Your task to perform on an android device: Open eBay Image 0: 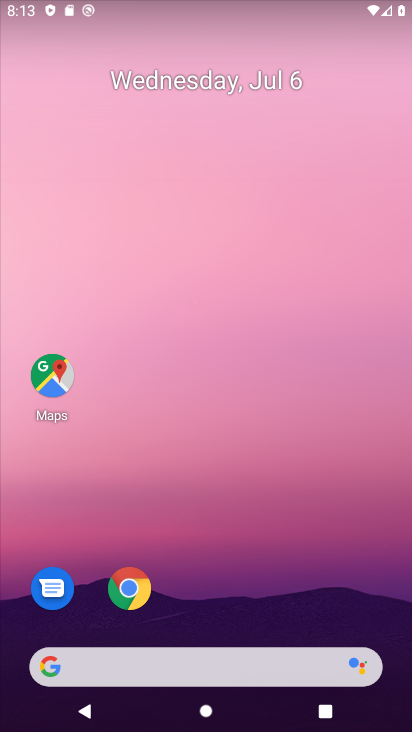
Step 0: drag from (276, 604) to (178, 157)
Your task to perform on an android device: Open eBay Image 1: 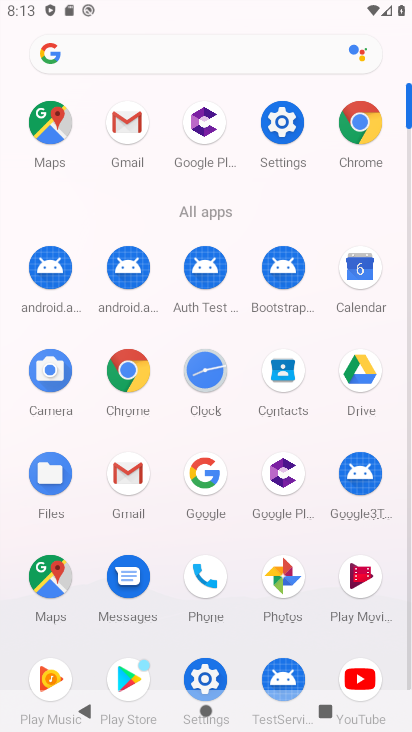
Step 1: click (365, 129)
Your task to perform on an android device: Open eBay Image 2: 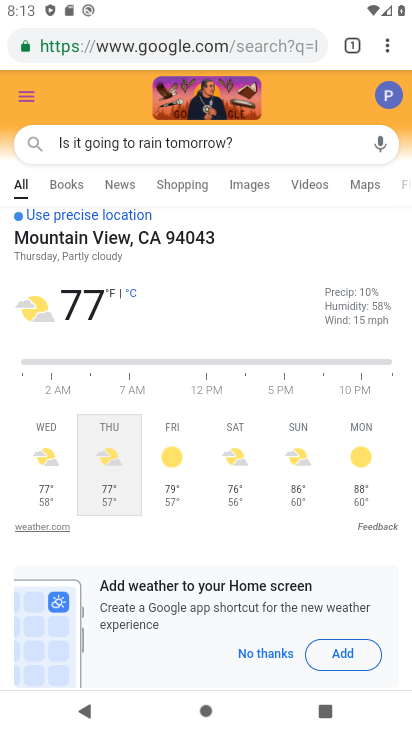
Step 2: click (294, 52)
Your task to perform on an android device: Open eBay Image 3: 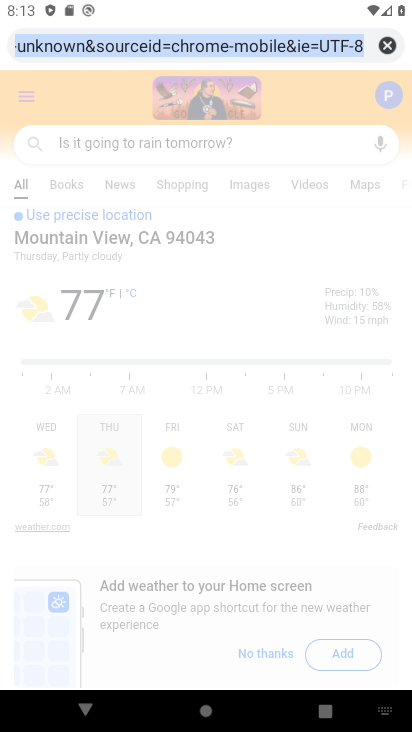
Step 3: type "ebay"
Your task to perform on an android device: Open eBay Image 4: 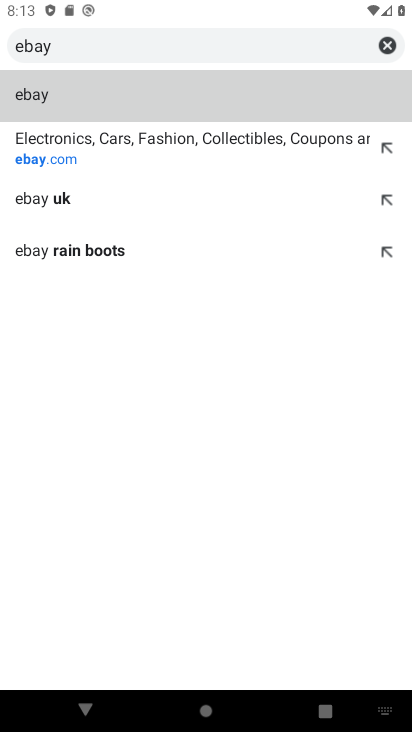
Step 4: click (286, 147)
Your task to perform on an android device: Open eBay Image 5: 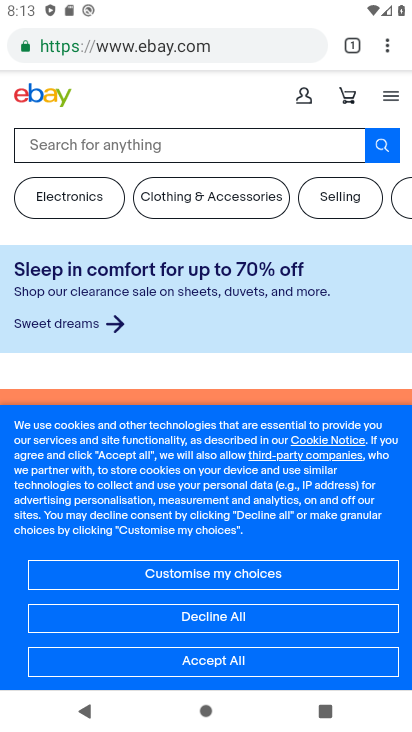
Step 5: task complete